Your task to perform on an android device: Go to sound settings Image 0: 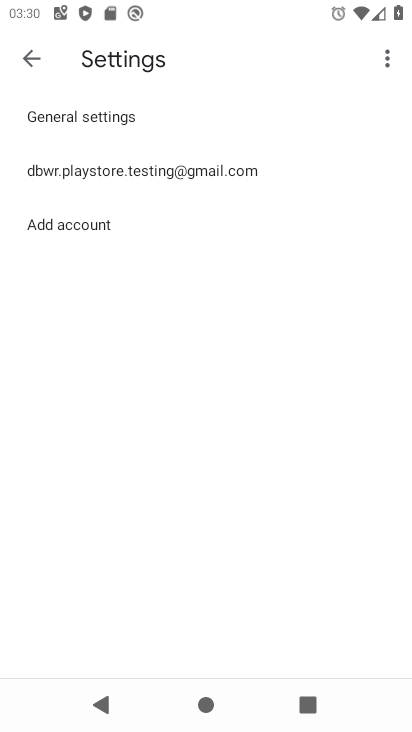
Step 0: press home button
Your task to perform on an android device: Go to sound settings Image 1: 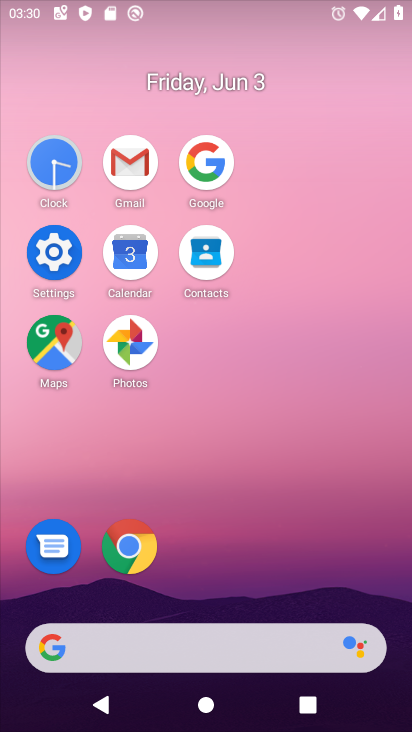
Step 1: click (59, 251)
Your task to perform on an android device: Go to sound settings Image 2: 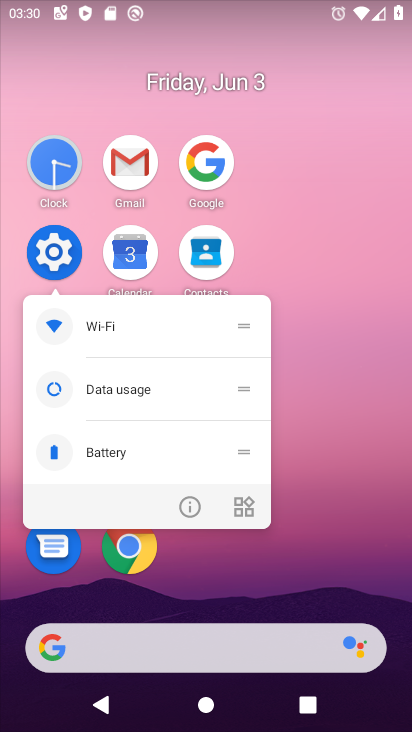
Step 2: click (67, 259)
Your task to perform on an android device: Go to sound settings Image 3: 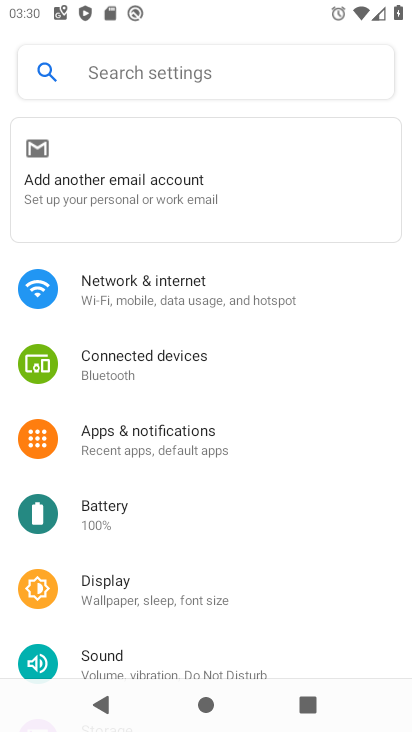
Step 3: drag from (159, 562) to (195, 296)
Your task to perform on an android device: Go to sound settings Image 4: 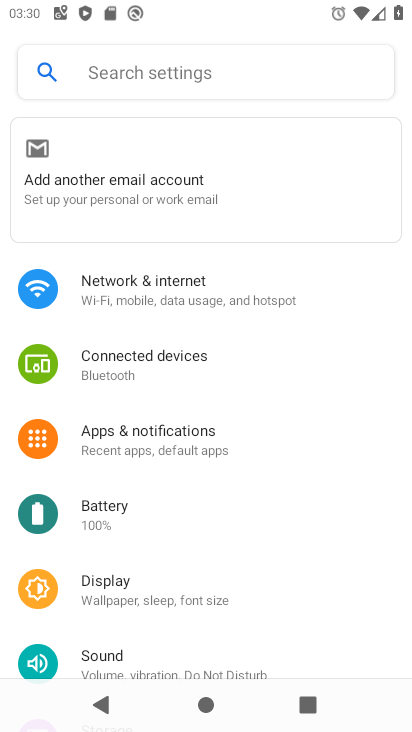
Step 4: click (138, 656)
Your task to perform on an android device: Go to sound settings Image 5: 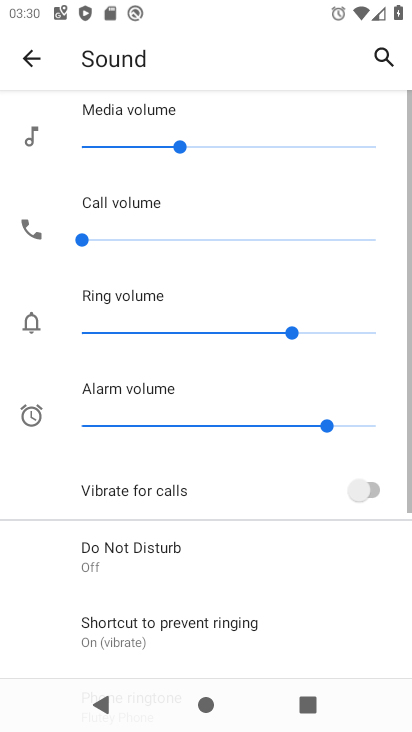
Step 5: task complete